Your task to perform on an android device: When is my next meeting? Image 0: 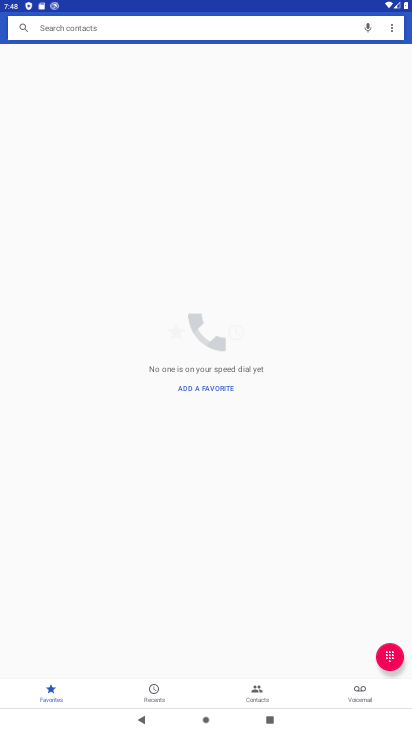
Step 0: press home button
Your task to perform on an android device: When is my next meeting? Image 1: 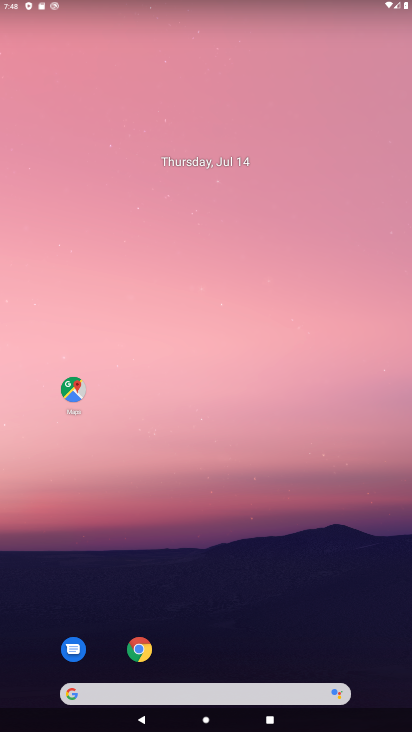
Step 1: drag from (313, 502) to (255, 171)
Your task to perform on an android device: When is my next meeting? Image 2: 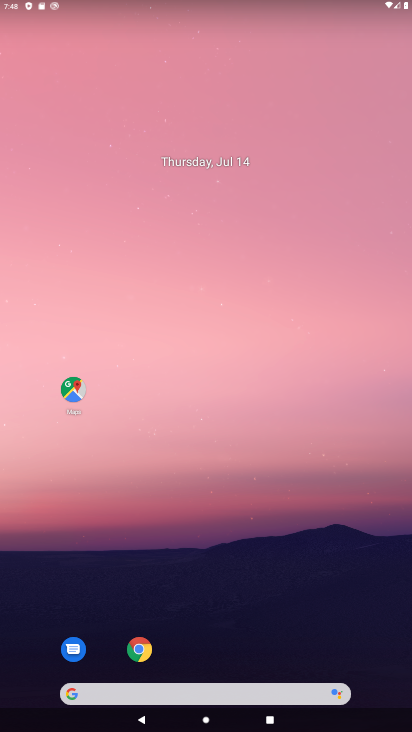
Step 2: drag from (237, 450) to (178, 2)
Your task to perform on an android device: When is my next meeting? Image 3: 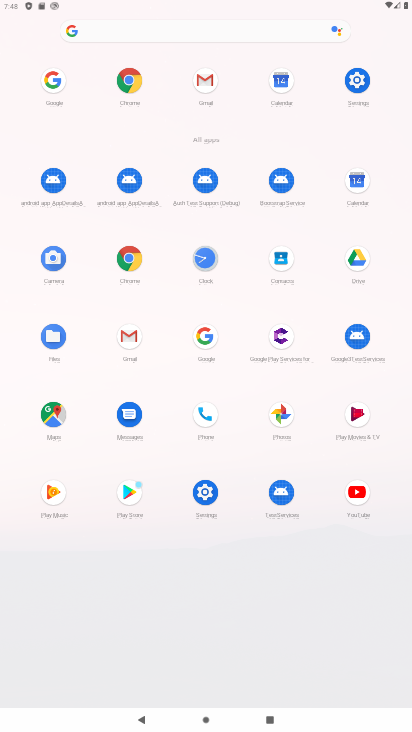
Step 3: click (358, 188)
Your task to perform on an android device: When is my next meeting? Image 4: 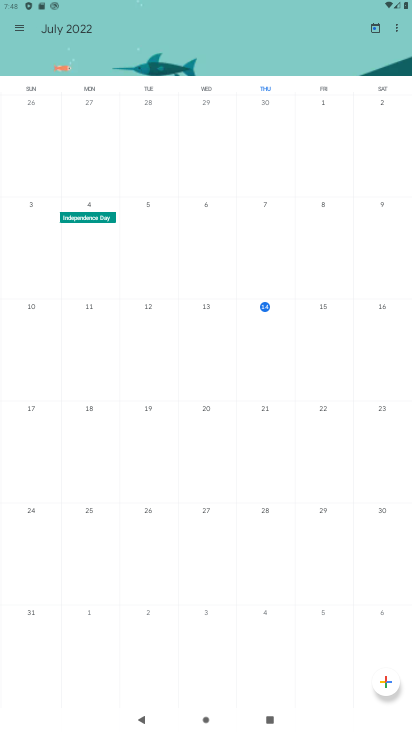
Step 4: task complete